Your task to perform on an android device: add a contact Image 0: 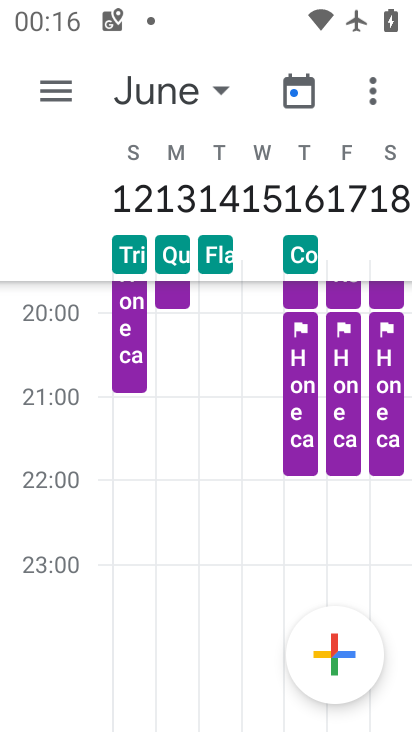
Step 0: press home button
Your task to perform on an android device: add a contact Image 1: 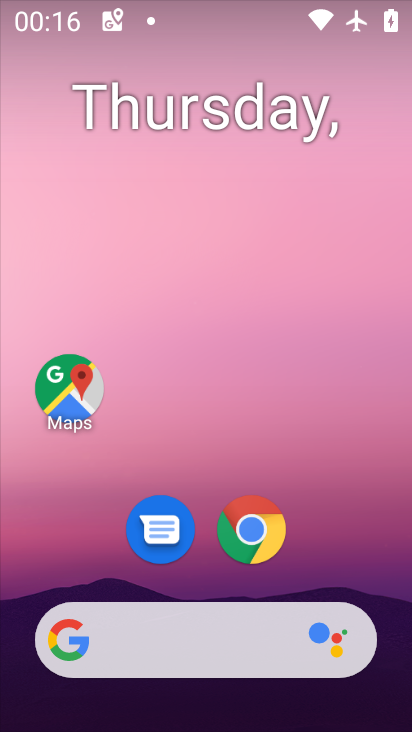
Step 1: drag from (401, 608) to (337, 146)
Your task to perform on an android device: add a contact Image 2: 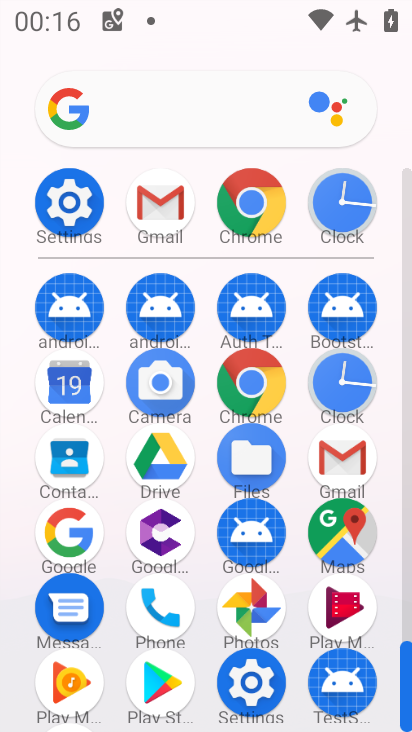
Step 2: click (67, 456)
Your task to perform on an android device: add a contact Image 3: 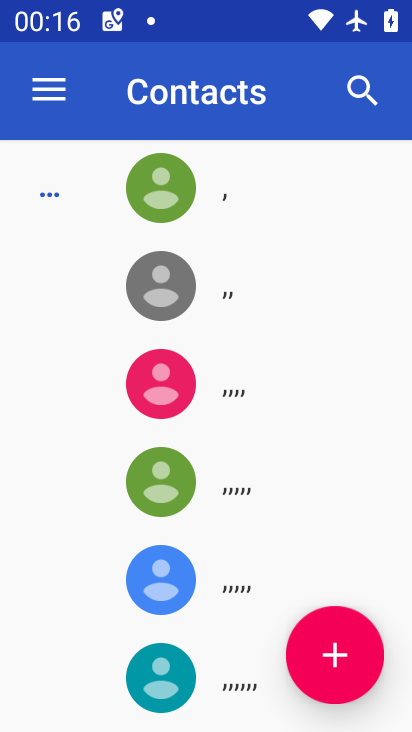
Step 3: click (334, 652)
Your task to perform on an android device: add a contact Image 4: 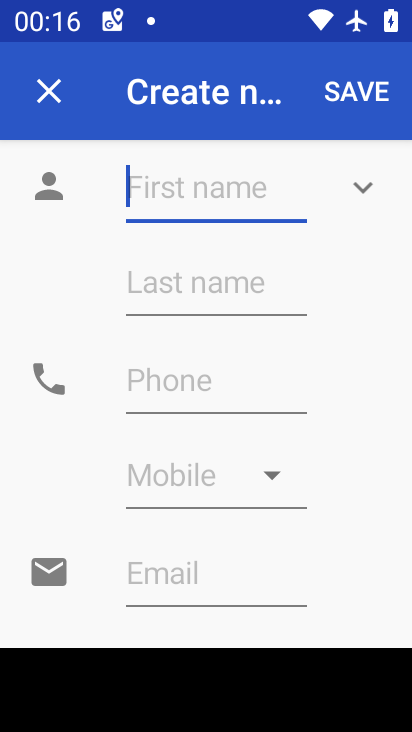
Step 4: type "khgddh"
Your task to perform on an android device: add a contact Image 5: 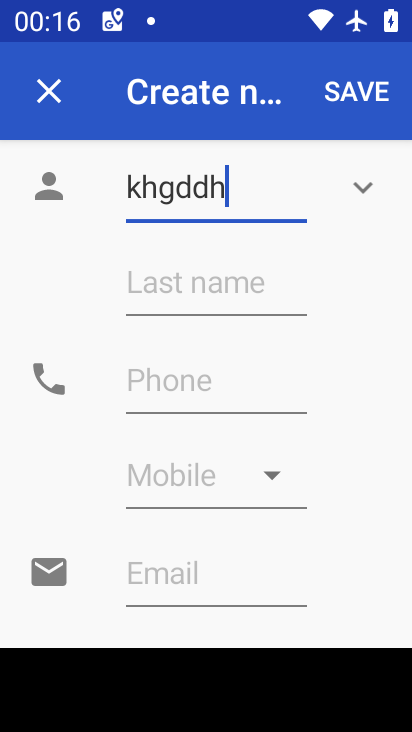
Step 5: click (174, 383)
Your task to perform on an android device: add a contact Image 6: 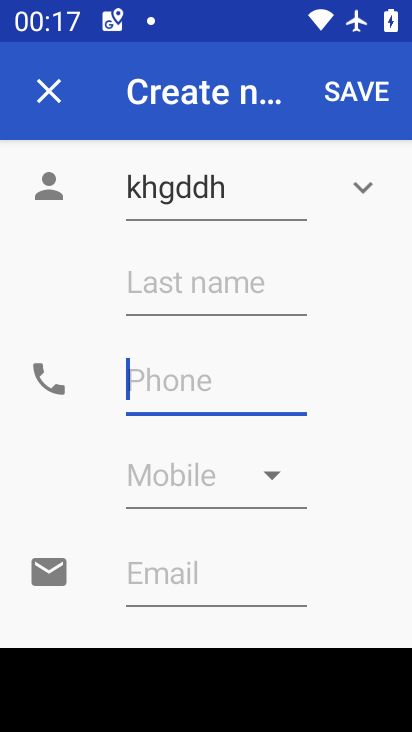
Step 6: type "980346790"
Your task to perform on an android device: add a contact Image 7: 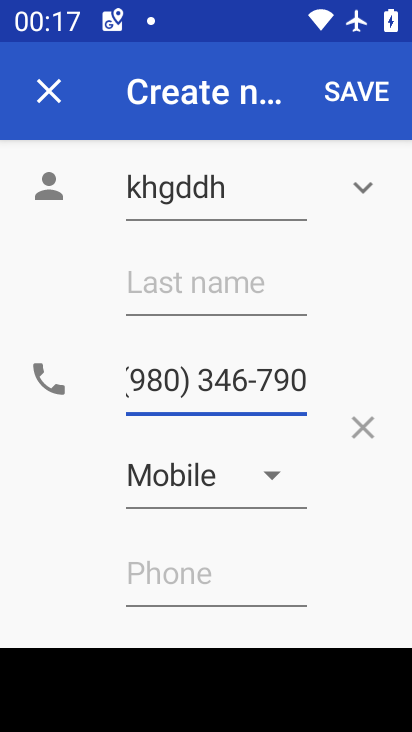
Step 7: click (268, 474)
Your task to perform on an android device: add a contact Image 8: 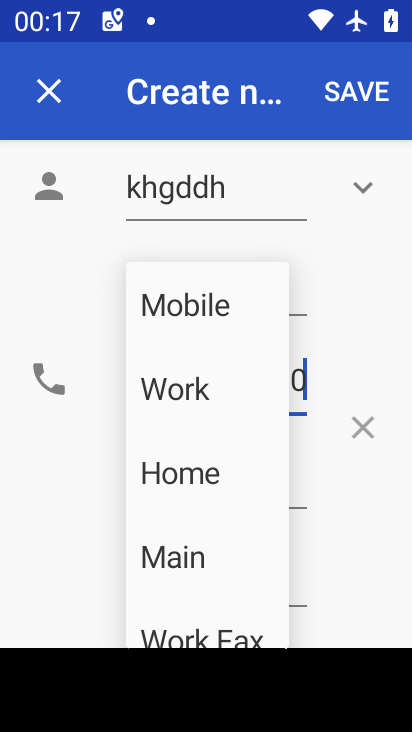
Step 8: click (177, 393)
Your task to perform on an android device: add a contact Image 9: 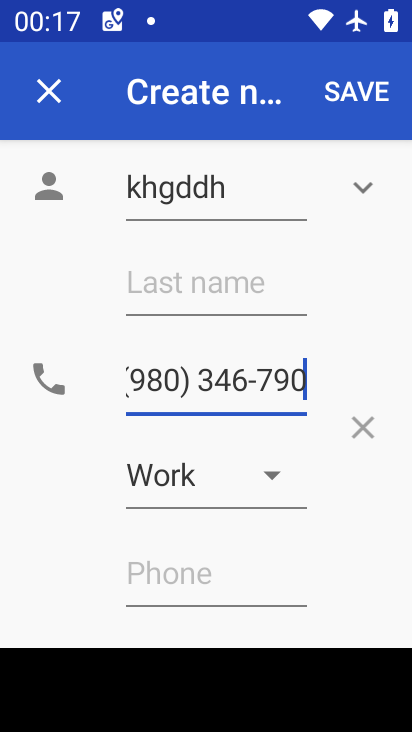
Step 9: click (354, 90)
Your task to perform on an android device: add a contact Image 10: 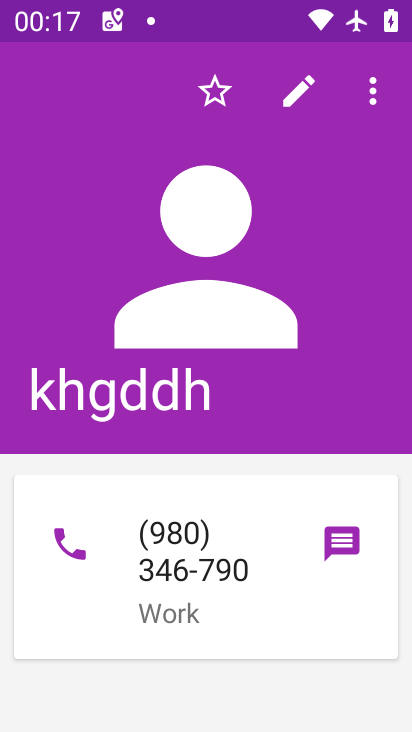
Step 10: task complete